Your task to perform on an android device: Open Youtube and go to the subscriptions tab Image 0: 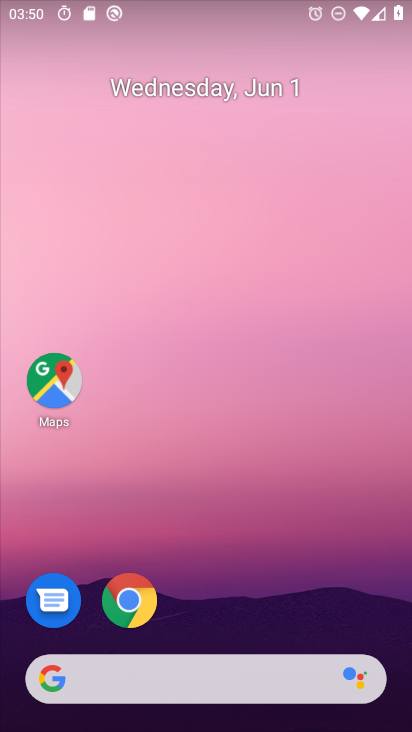
Step 0: drag from (221, 569) to (209, 36)
Your task to perform on an android device: Open Youtube and go to the subscriptions tab Image 1: 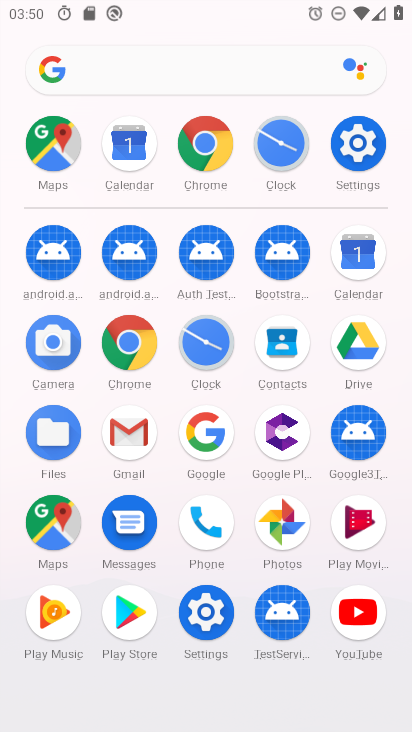
Step 1: click (349, 615)
Your task to perform on an android device: Open Youtube and go to the subscriptions tab Image 2: 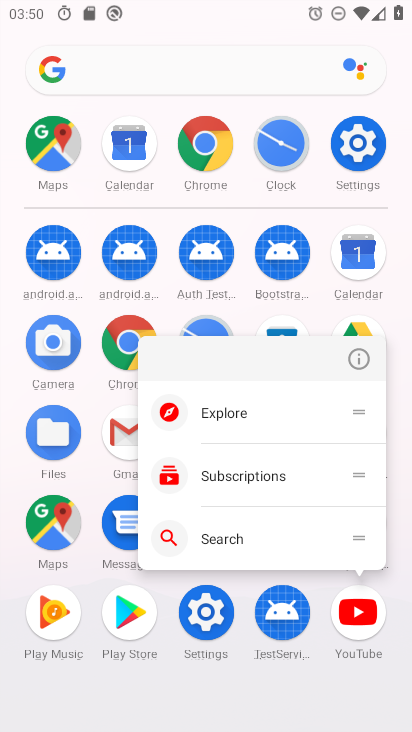
Step 2: click (354, 644)
Your task to perform on an android device: Open Youtube and go to the subscriptions tab Image 3: 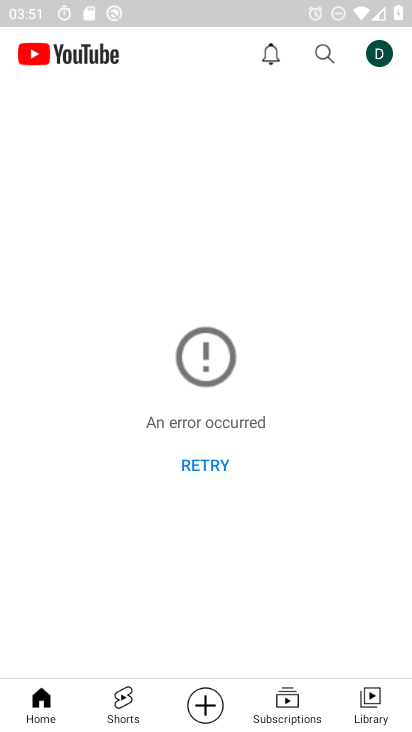
Step 3: click (288, 700)
Your task to perform on an android device: Open Youtube and go to the subscriptions tab Image 4: 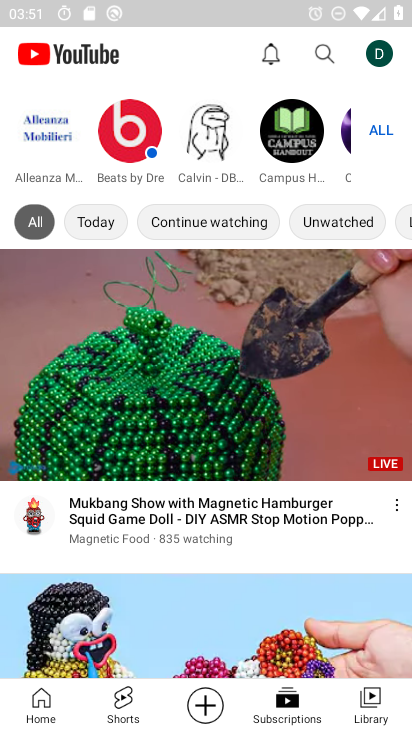
Step 4: task complete